Your task to perform on an android device: turn pop-ups on in chrome Image 0: 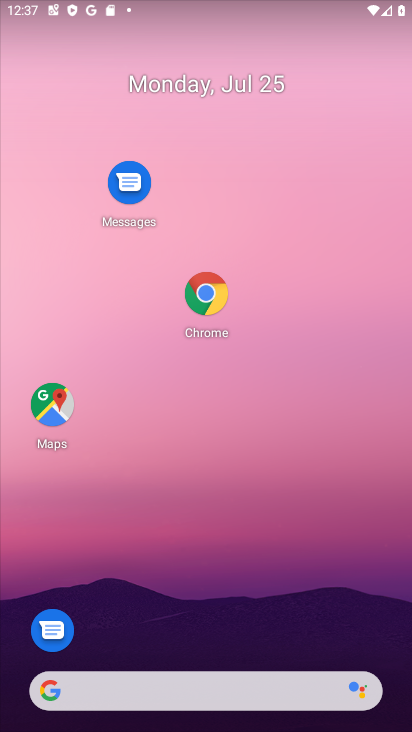
Step 0: click (198, 298)
Your task to perform on an android device: turn pop-ups on in chrome Image 1: 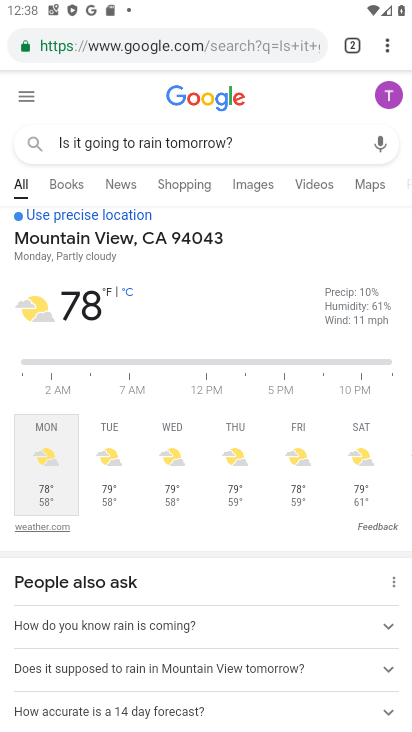
Step 1: drag from (382, 44) to (220, 568)
Your task to perform on an android device: turn pop-ups on in chrome Image 2: 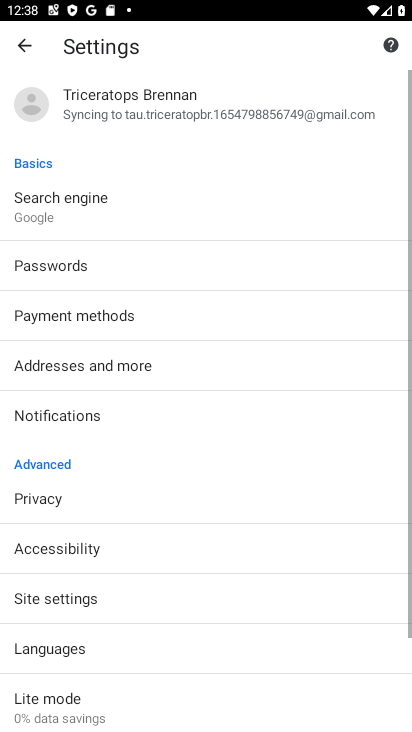
Step 2: drag from (177, 635) to (204, 273)
Your task to perform on an android device: turn pop-ups on in chrome Image 3: 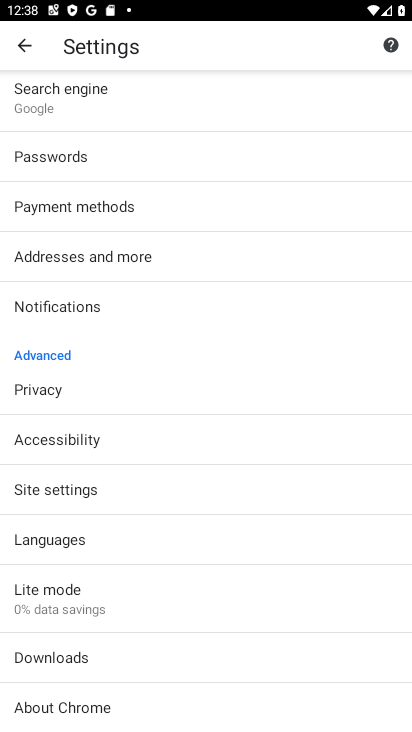
Step 3: click (83, 494)
Your task to perform on an android device: turn pop-ups on in chrome Image 4: 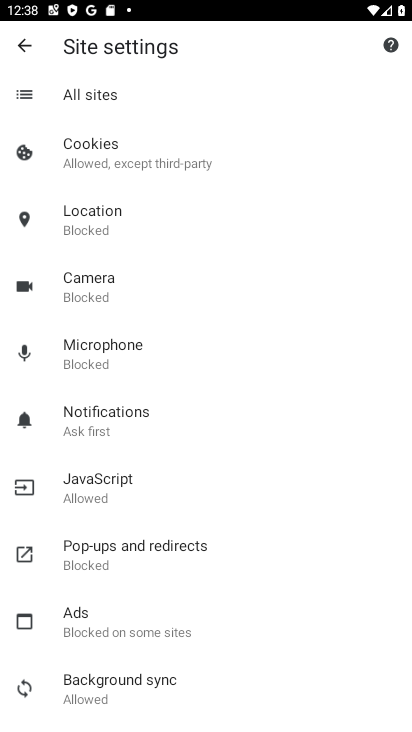
Step 4: click (183, 541)
Your task to perform on an android device: turn pop-ups on in chrome Image 5: 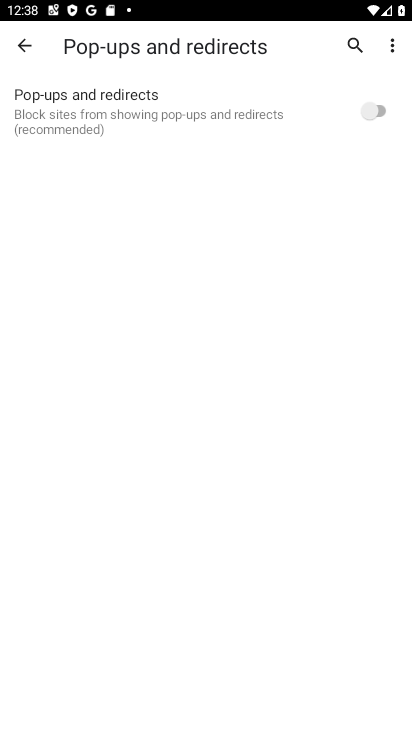
Step 5: click (178, 122)
Your task to perform on an android device: turn pop-ups on in chrome Image 6: 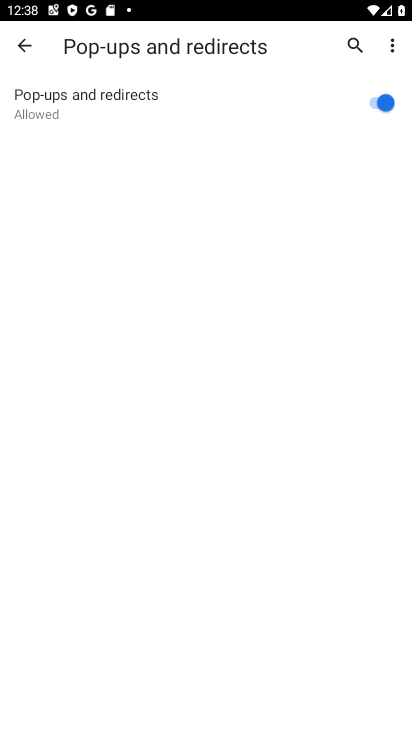
Step 6: task complete